Your task to perform on an android device: change the clock style Image 0: 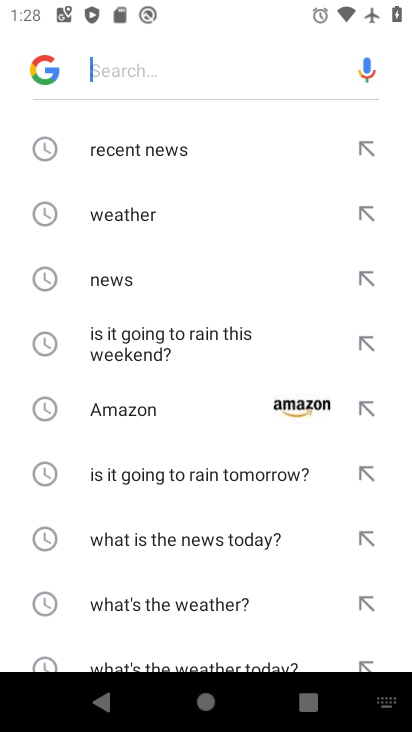
Step 0: press home button
Your task to perform on an android device: change the clock style Image 1: 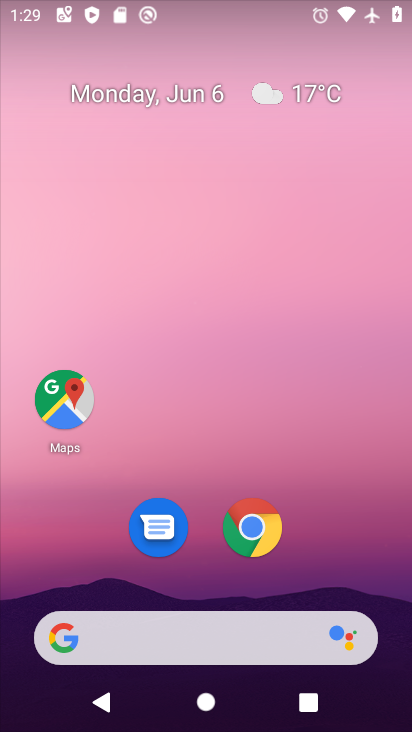
Step 1: drag from (331, 498) to (110, 14)
Your task to perform on an android device: change the clock style Image 2: 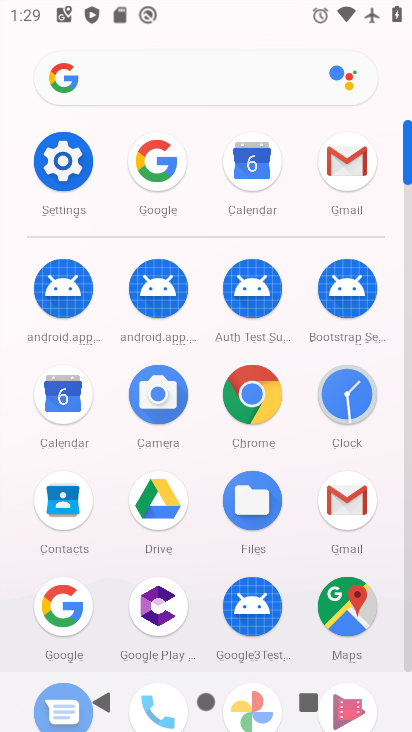
Step 2: click (351, 380)
Your task to perform on an android device: change the clock style Image 3: 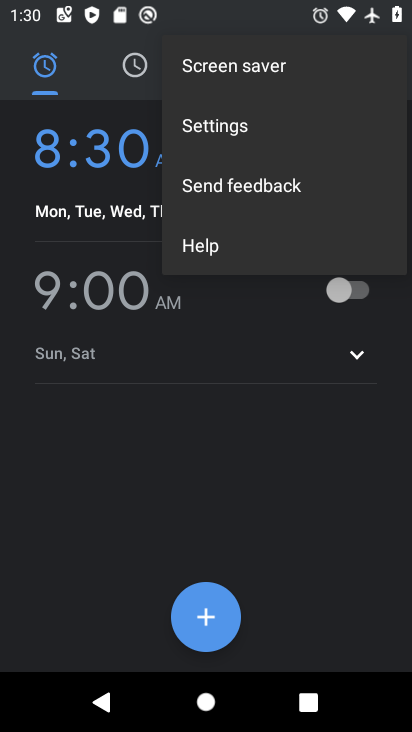
Step 3: click (223, 135)
Your task to perform on an android device: change the clock style Image 4: 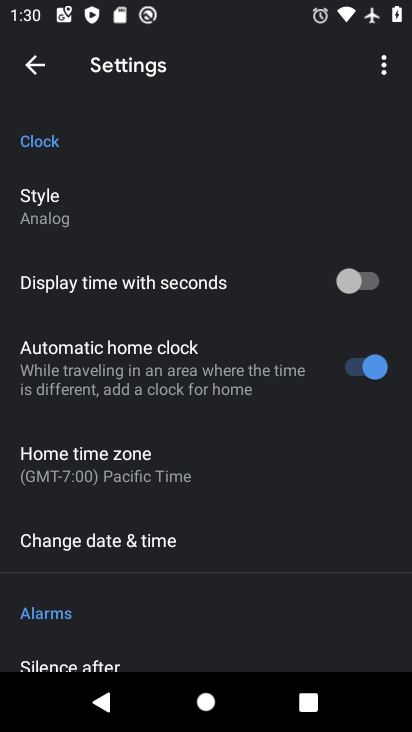
Step 4: click (105, 207)
Your task to perform on an android device: change the clock style Image 5: 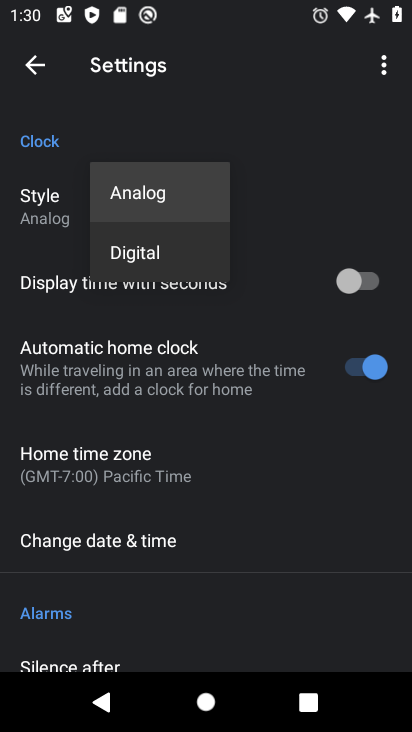
Step 5: click (165, 252)
Your task to perform on an android device: change the clock style Image 6: 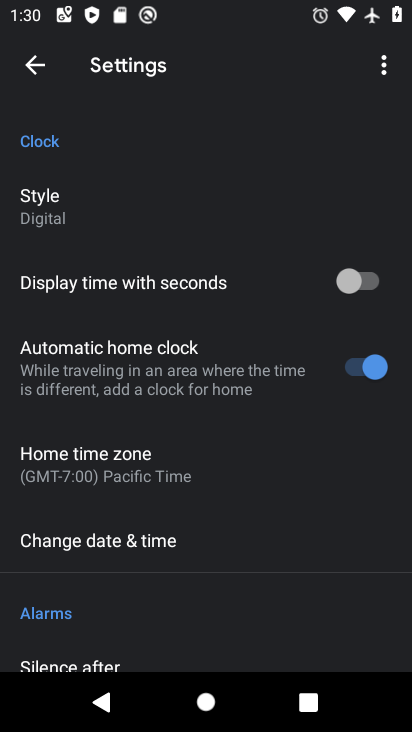
Step 6: task complete